Your task to perform on an android device: read, delete, or share a saved page in the chrome app Image 0: 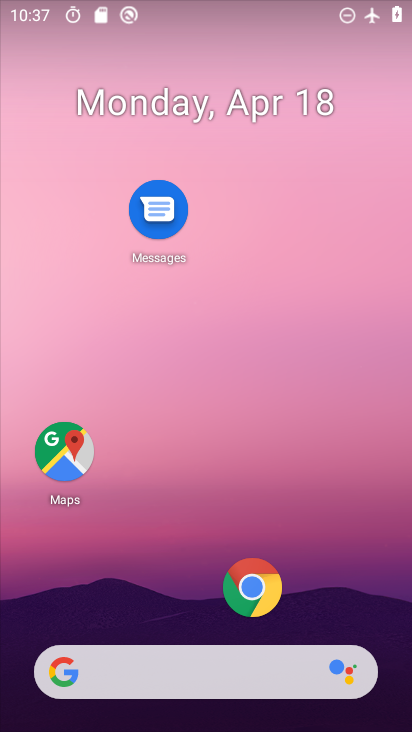
Step 0: click (239, 588)
Your task to perform on an android device: read, delete, or share a saved page in the chrome app Image 1: 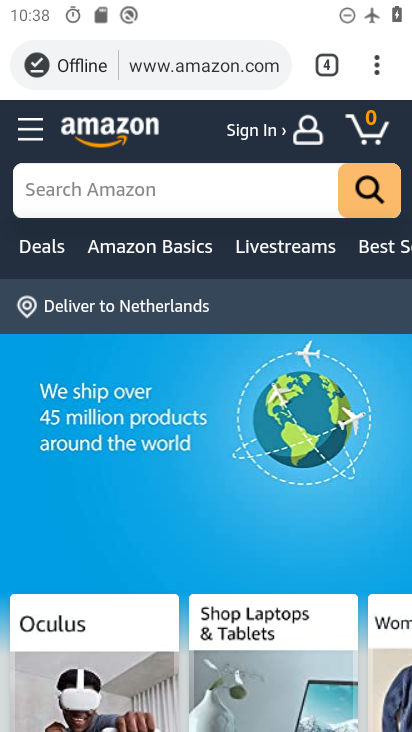
Step 1: click (380, 70)
Your task to perform on an android device: read, delete, or share a saved page in the chrome app Image 2: 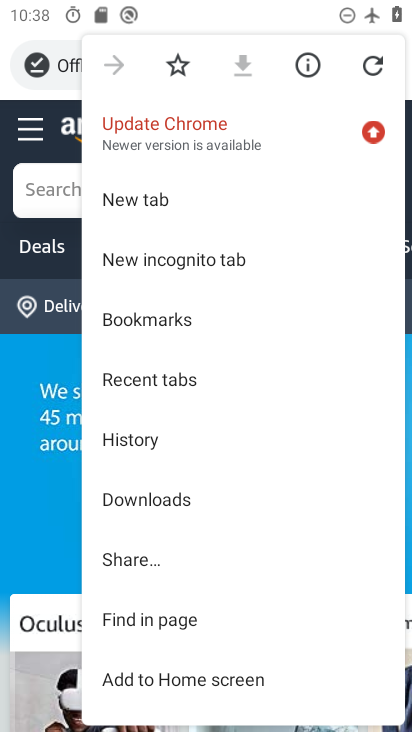
Step 2: drag from (192, 628) to (222, 404)
Your task to perform on an android device: read, delete, or share a saved page in the chrome app Image 3: 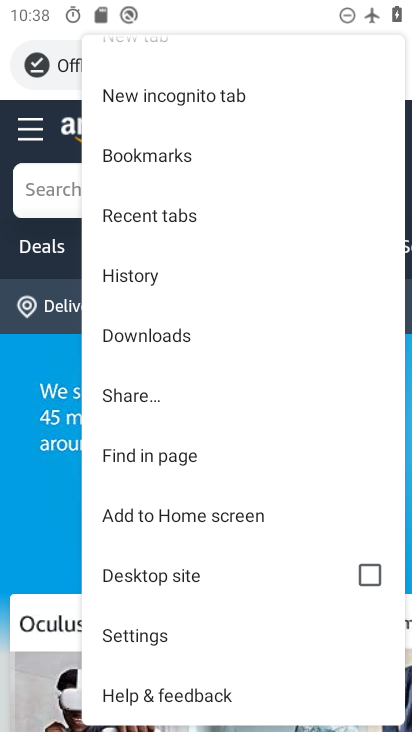
Step 3: click (157, 349)
Your task to perform on an android device: read, delete, or share a saved page in the chrome app Image 4: 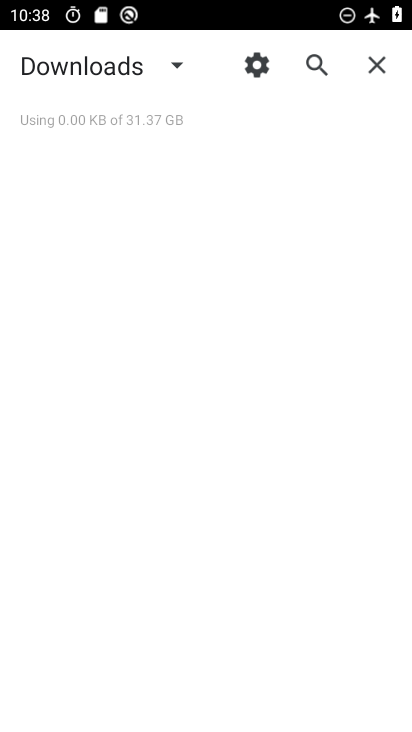
Step 4: task complete